Your task to perform on an android device: Go to Reddit.com Image 0: 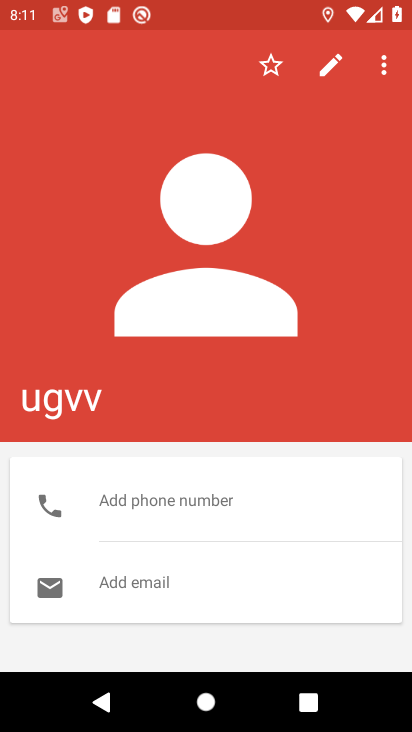
Step 0: press home button
Your task to perform on an android device: Go to Reddit.com Image 1: 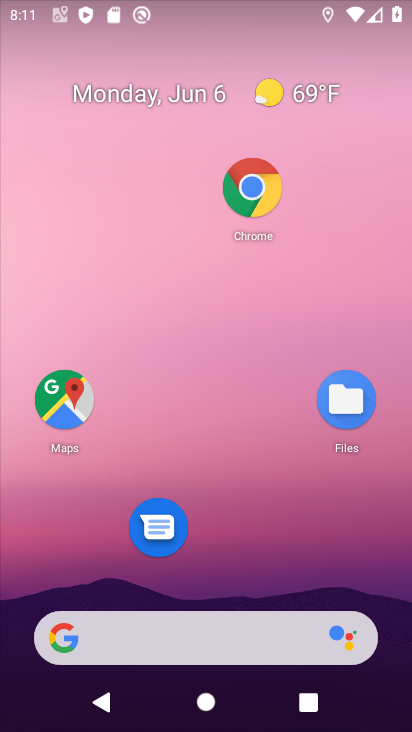
Step 1: drag from (223, 553) to (207, 54)
Your task to perform on an android device: Go to Reddit.com Image 2: 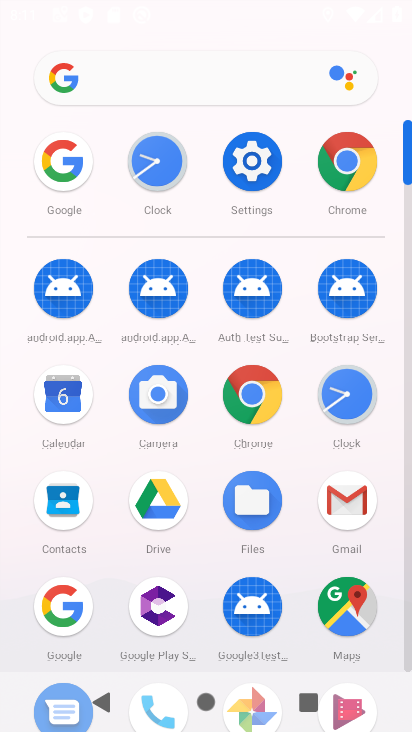
Step 2: click (64, 603)
Your task to perform on an android device: Go to Reddit.com Image 3: 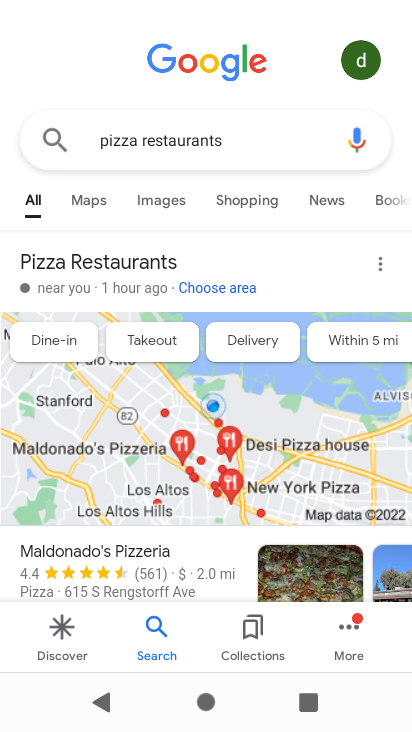
Step 3: click (251, 144)
Your task to perform on an android device: Go to Reddit.com Image 4: 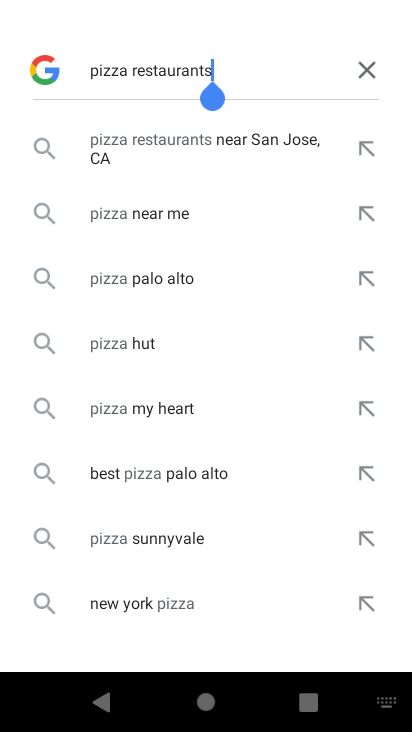
Step 4: click (365, 67)
Your task to perform on an android device: Go to Reddit.com Image 5: 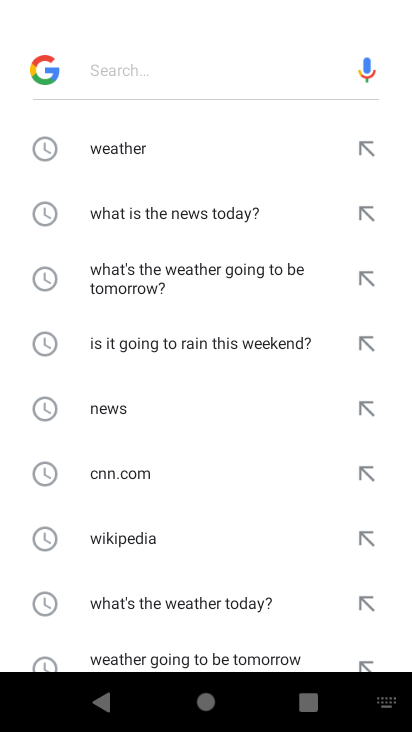
Step 5: drag from (192, 536) to (212, 183)
Your task to perform on an android device: Go to Reddit.com Image 6: 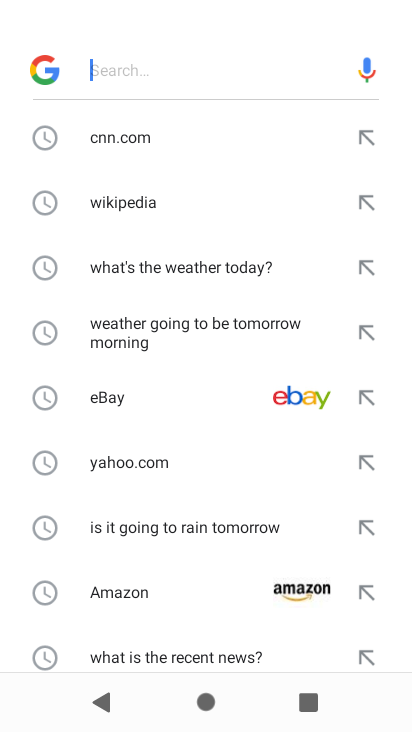
Step 6: drag from (203, 585) to (212, 202)
Your task to perform on an android device: Go to Reddit.com Image 7: 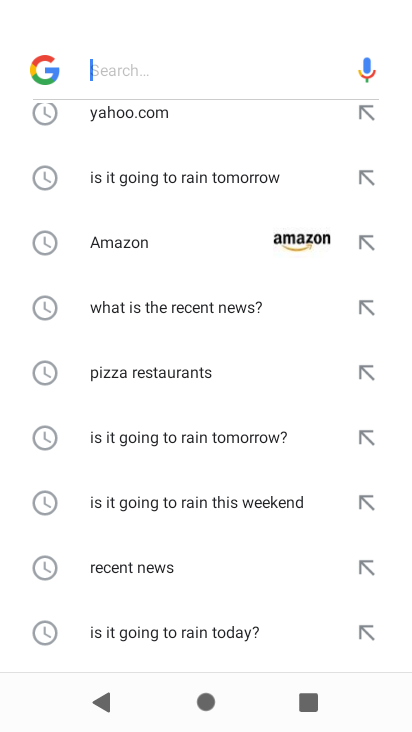
Step 7: drag from (204, 575) to (178, 179)
Your task to perform on an android device: Go to Reddit.com Image 8: 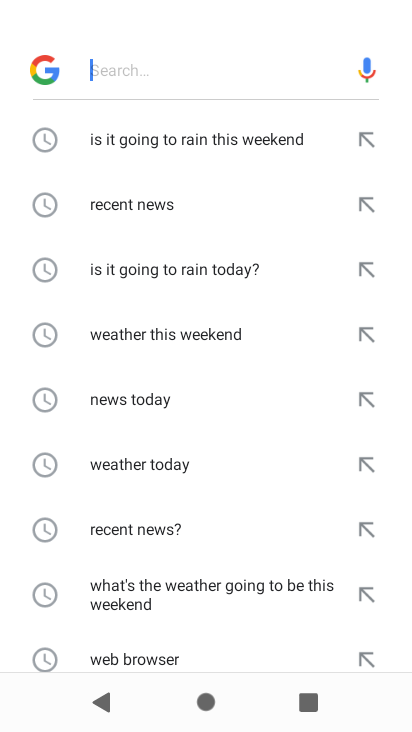
Step 8: type "reddit,com"
Your task to perform on an android device: Go to Reddit.com Image 9: 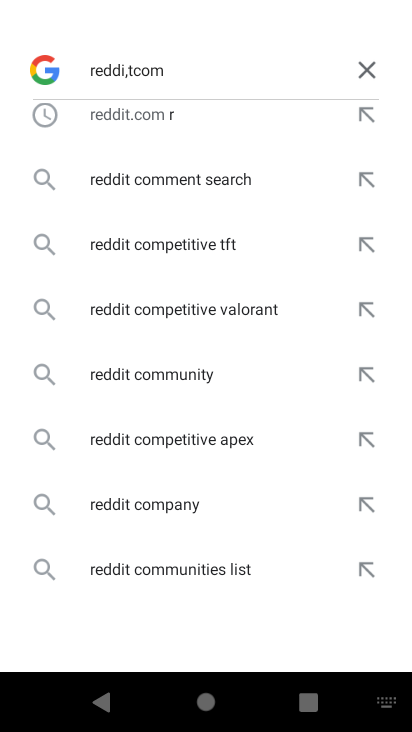
Step 9: drag from (206, 436) to (219, 549)
Your task to perform on an android device: Go to Reddit.com Image 10: 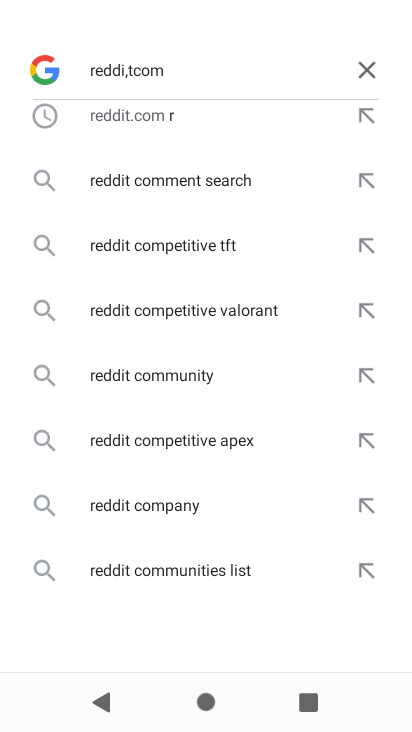
Step 10: drag from (214, 156) to (256, 468)
Your task to perform on an android device: Go to Reddit.com Image 11: 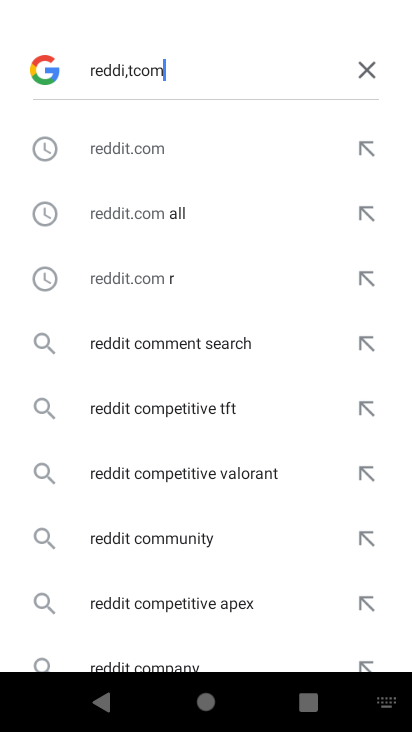
Step 11: click (137, 153)
Your task to perform on an android device: Go to Reddit.com Image 12: 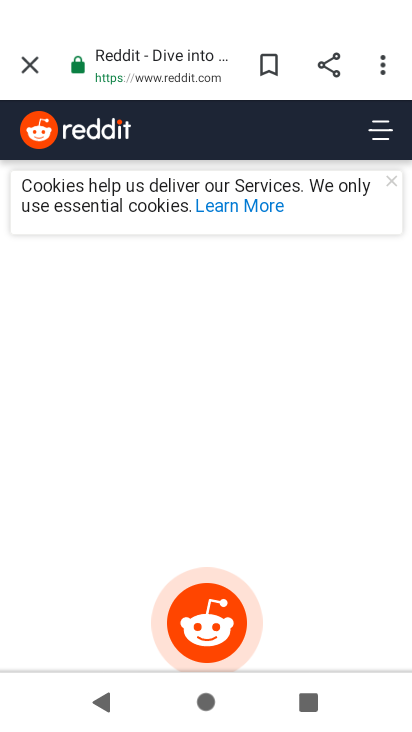
Step 12: task complete